Your task to perform on an android device: Open the Play Movies app and select the watchlist tab. Image 0: 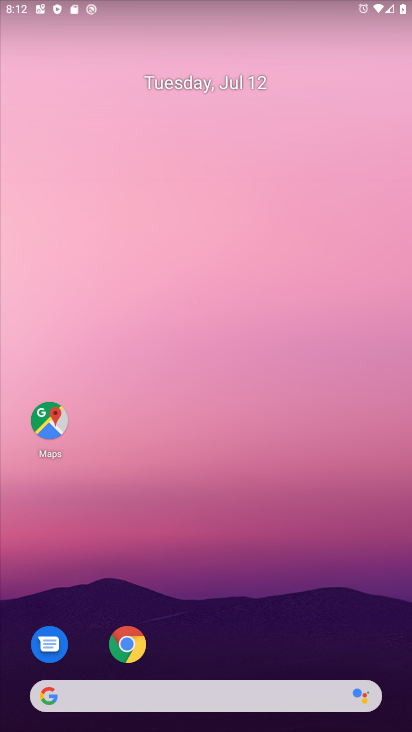
Step 0: drag from (190, 666) to (182, 347)
Your task to perform on an android device: Open the Play Movies app and select the watchlist tab. Image 1: 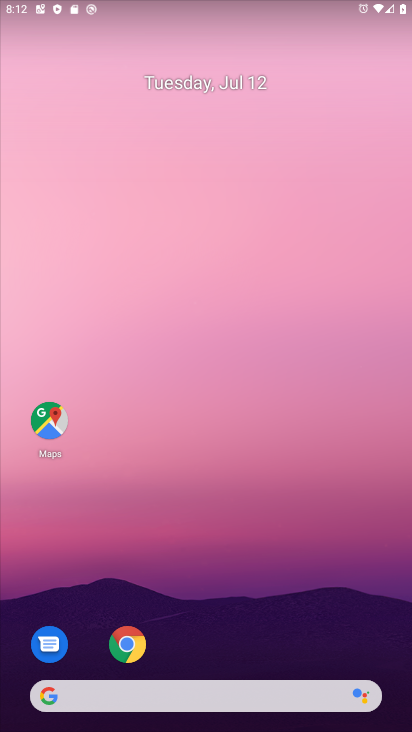
Step 1: drag from (252, 664) to (234, 249)
Your task to perform on an android device: Open the Play Movies app and select the watchlist tab. Image 2: 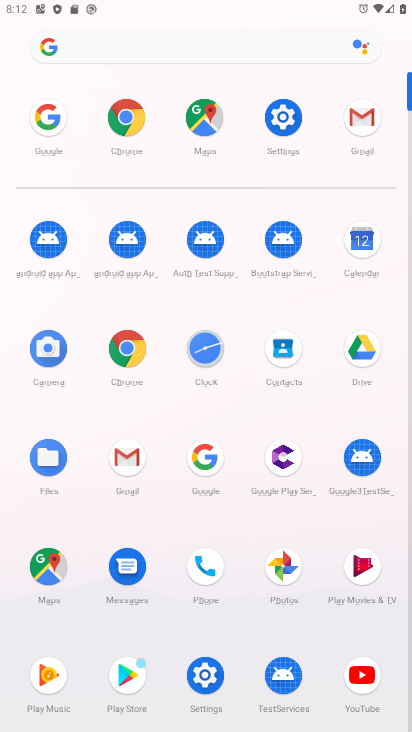
Step 2: click (367, 570)
Your task to perform on an android device: Open the Play Movies app and select the watchlist tab. Image 3: 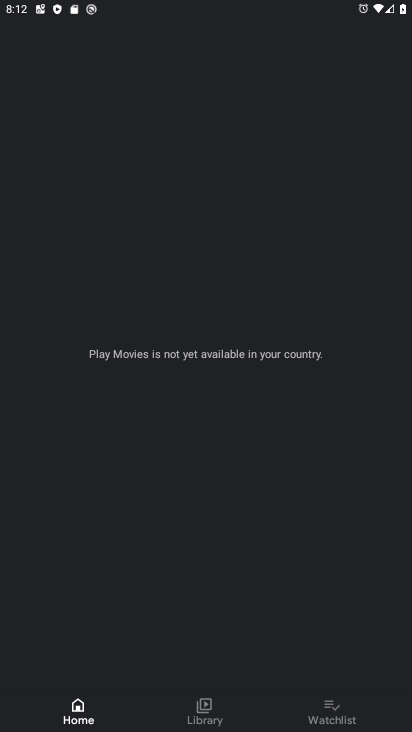
Step 3: click (322, 718)
Your task to perform on an android device: Open the Play Movies app and select the watchlist tab. Image 4: 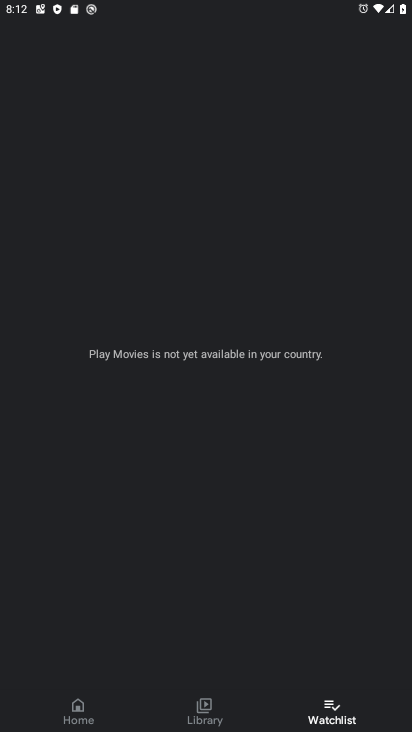
Step 4: task complete